Your task to perform on an android device: Is it going to rain this weekend? Image 0: 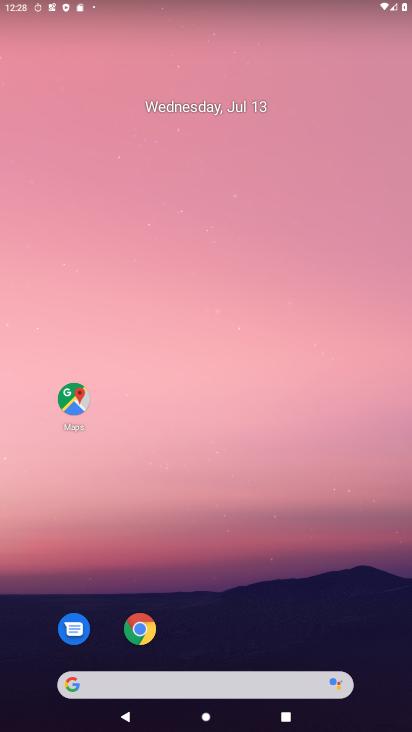
Step 0: drag from (216, 643) to (165, 198)
Your task to perform on an android device: Is it going to rain this weekend? Image 1: 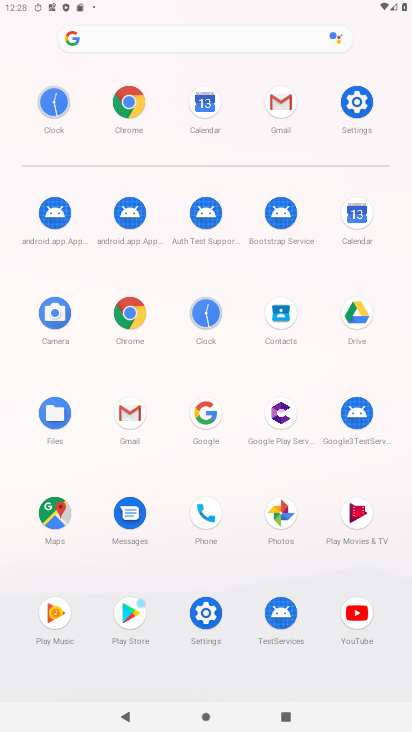
Step 1: click (218, 402)
Your task to perform on an android device: Is it going to rain this weekend? Image 2: 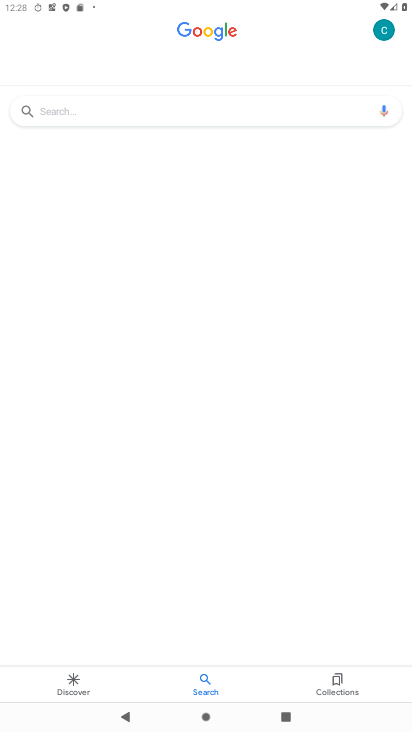
Step 2: click (149, 105)
Your task to perform on an android device: Is it going to rain this weekend? Image 3: 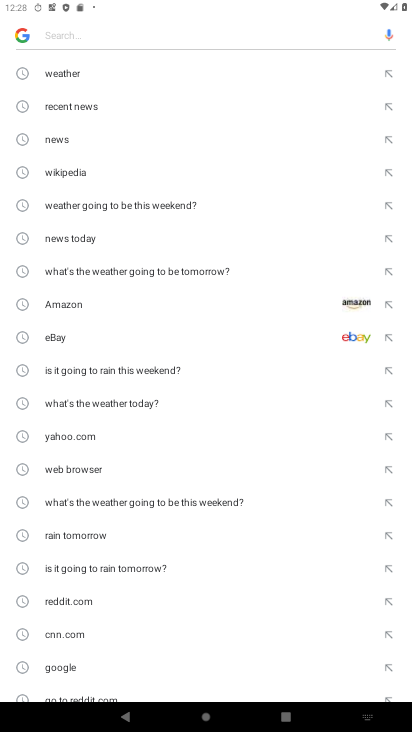
Step 3: click (68, 71)
Your task to perform on an android device: Is it going to rain this weekend? Image 4: 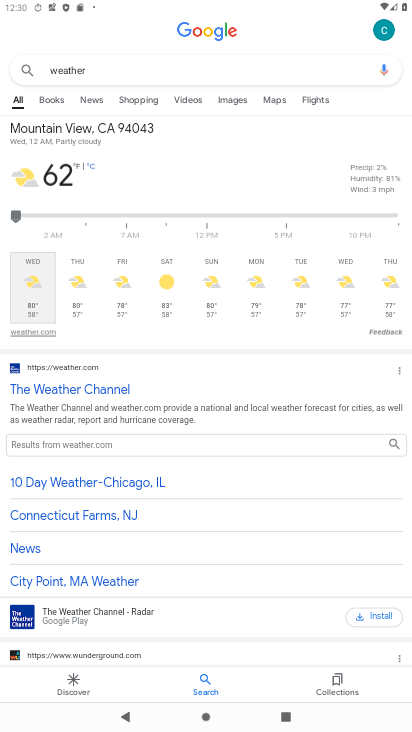
Step 4: task complete